Your task to perform on an android device: find which apps use the phone's location Image 0: 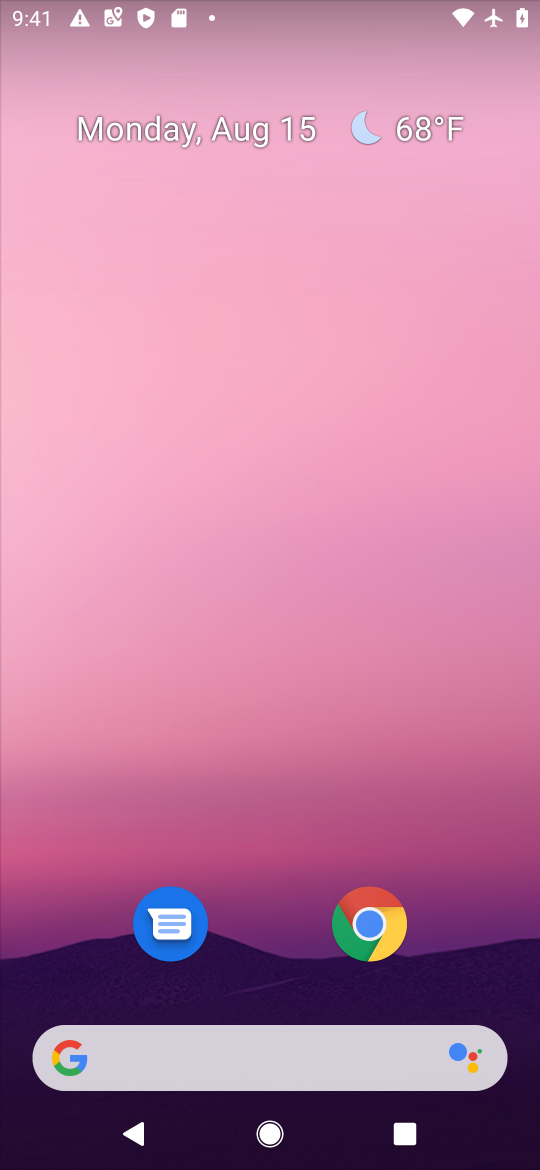
Step 0: drag from (512, 985) to (425, 173)
Your task to perform on an android device: find which apps use the phone's location Image 1: 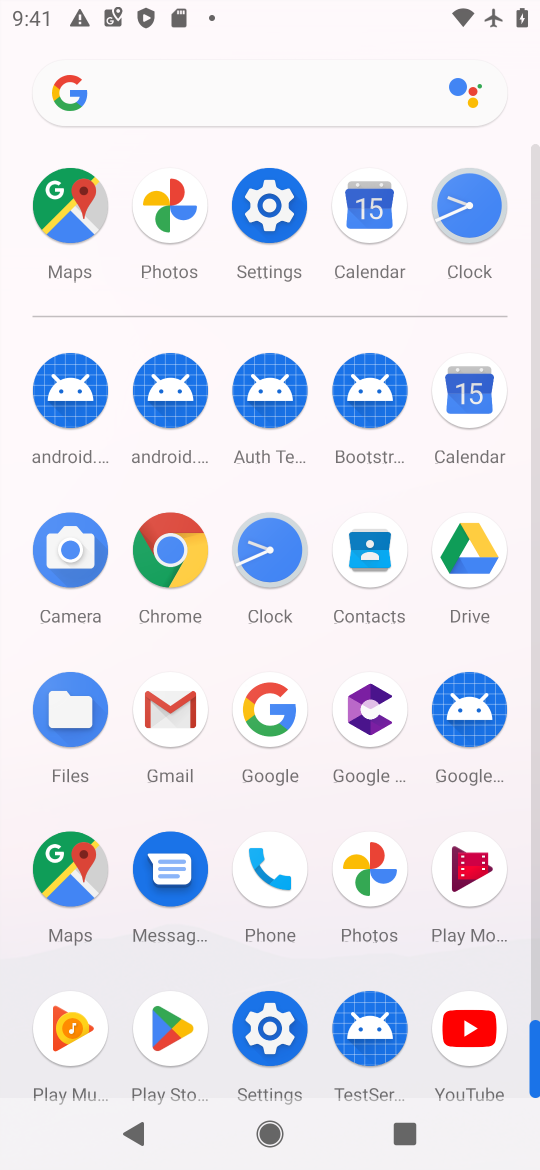
Step 1: click (269, 1028)
Your task to perform on an android device: find which apps use the phone's location Image 2: 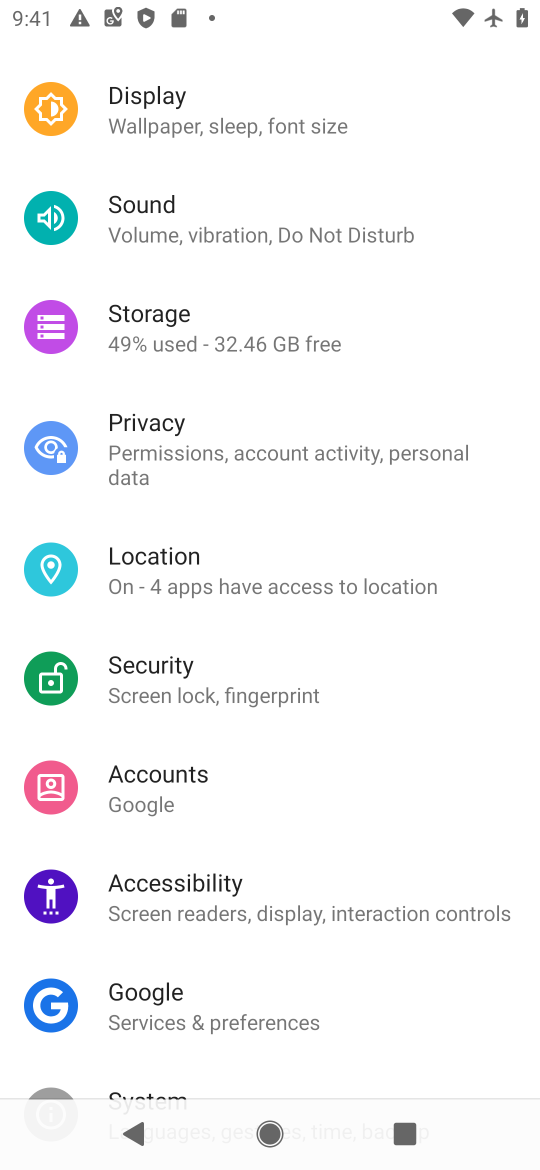
Step 2: click (195, 557)
Your task to perform on an android device: find which apps use the phone's location Image 3: 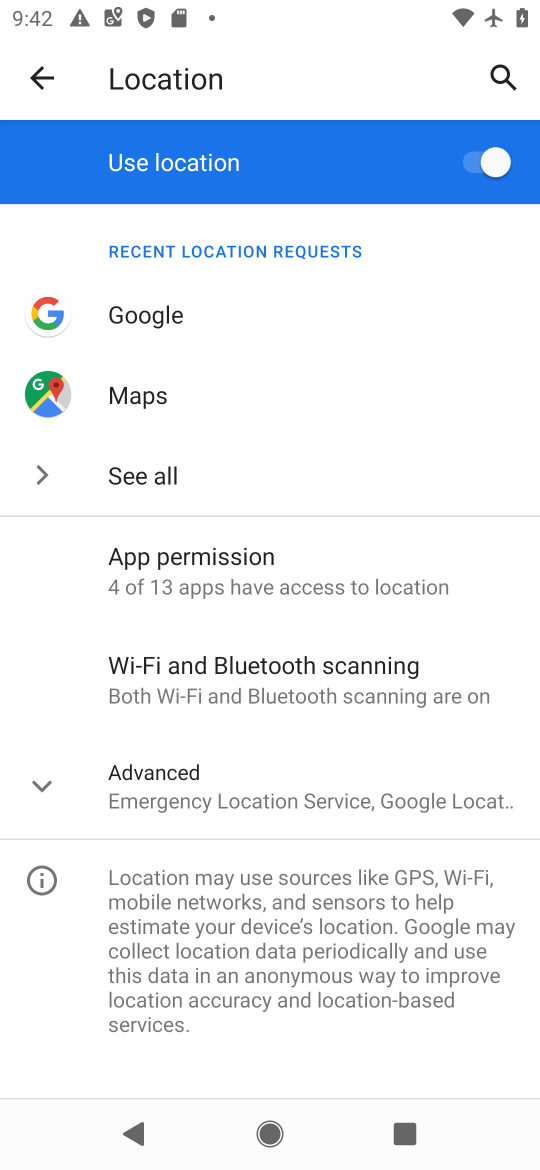
Step 3: click (49, 794)
Your task to perform on an android device: find which apps use the phone's location Image 4: 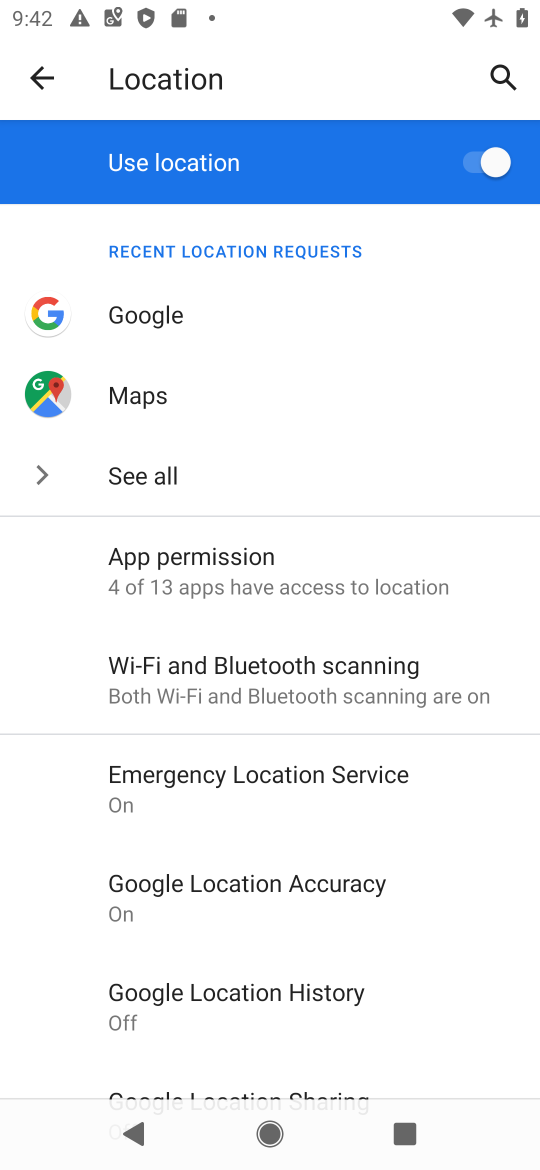
Step 4: click (184, 544)
Your task to perform on an android device: find which apps use the phone's location Image 5: 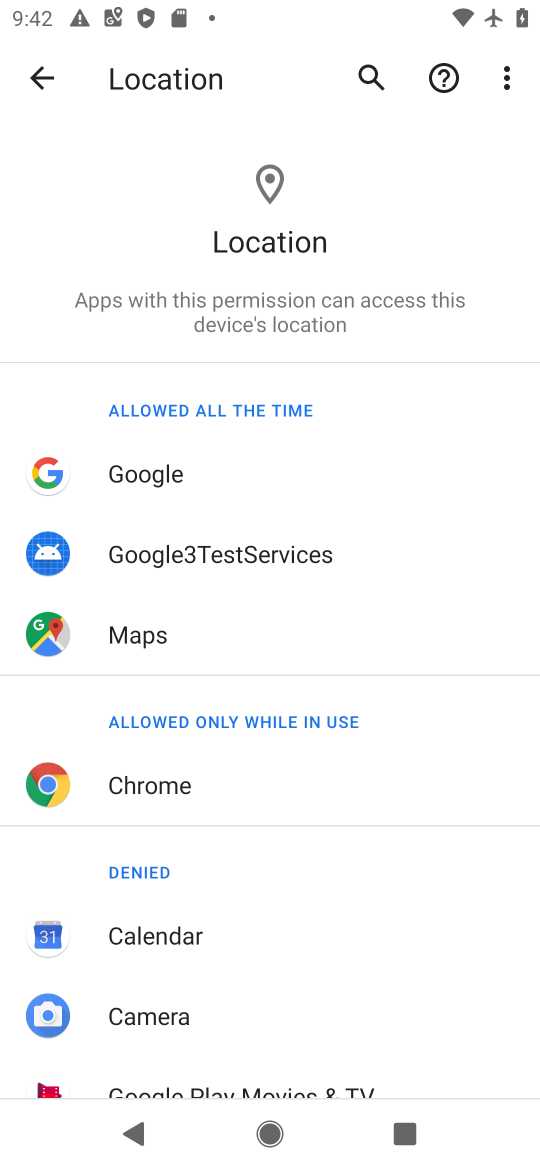
Step 5: task complete